Your task to perform on an android device: open app "Google Drive" (install if not already installed) Image 0: 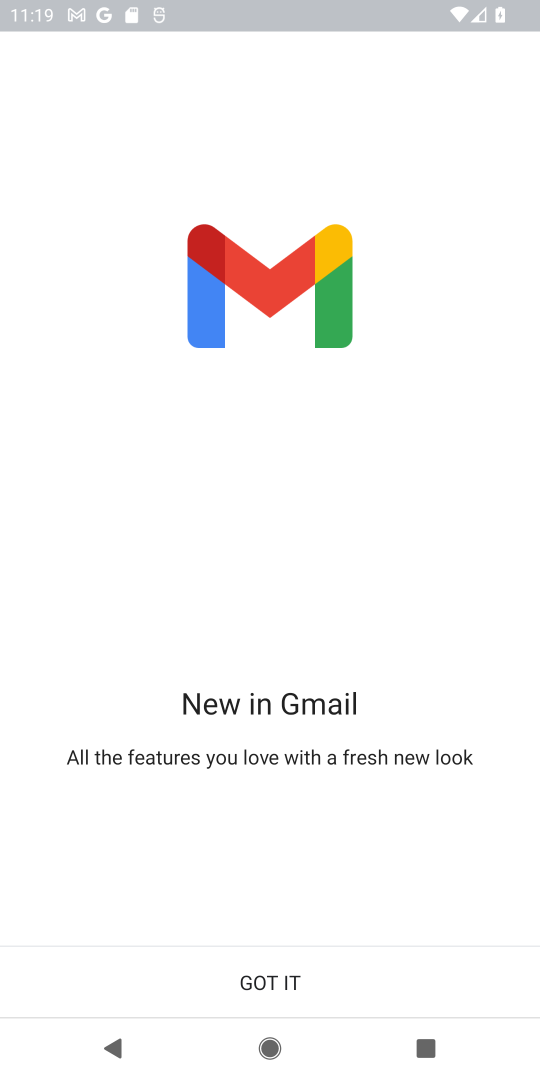
Step 0: press home button
Your task to perform on an android device: open app "Google Drive" (install if not already installed) Image 1: 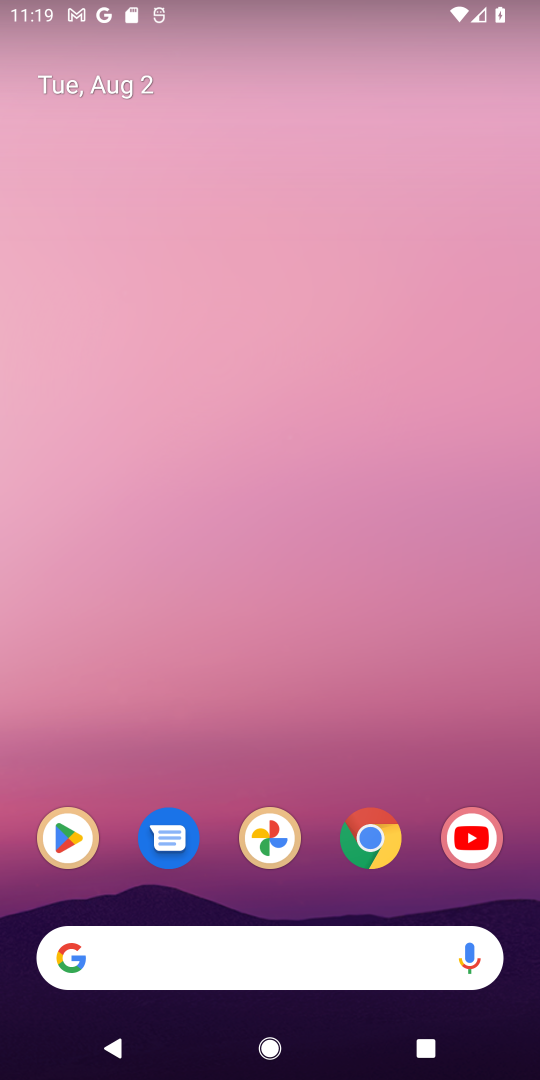
Step 1: click (57, 853)
Your task to perform on an android device: open app "Google Drive" (install if not already installed) Image 2: 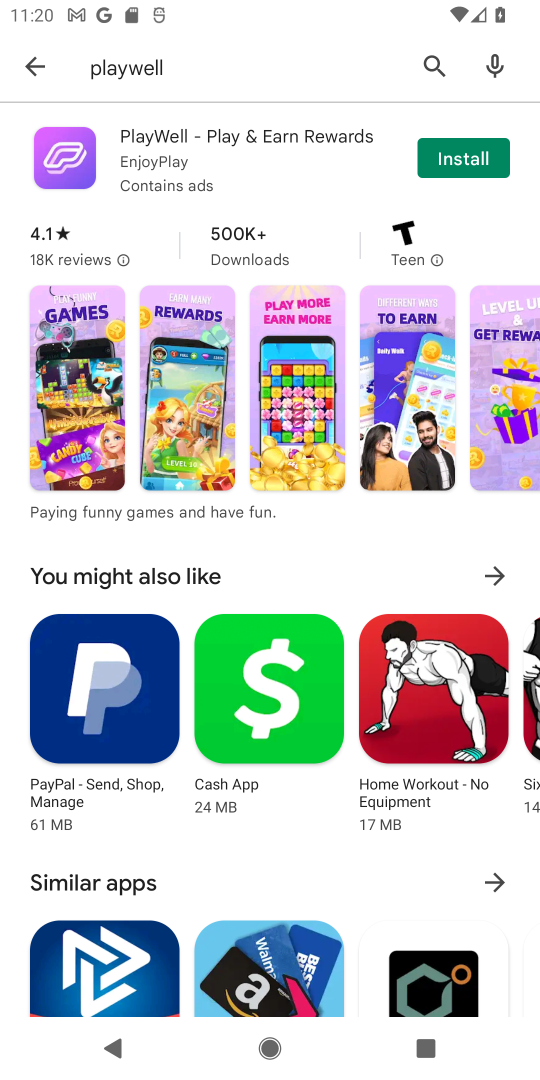
Step 2: click (413, 71)
Your task to perform on an android device: open app "Google Drive" (install if not already installed) Image 3: 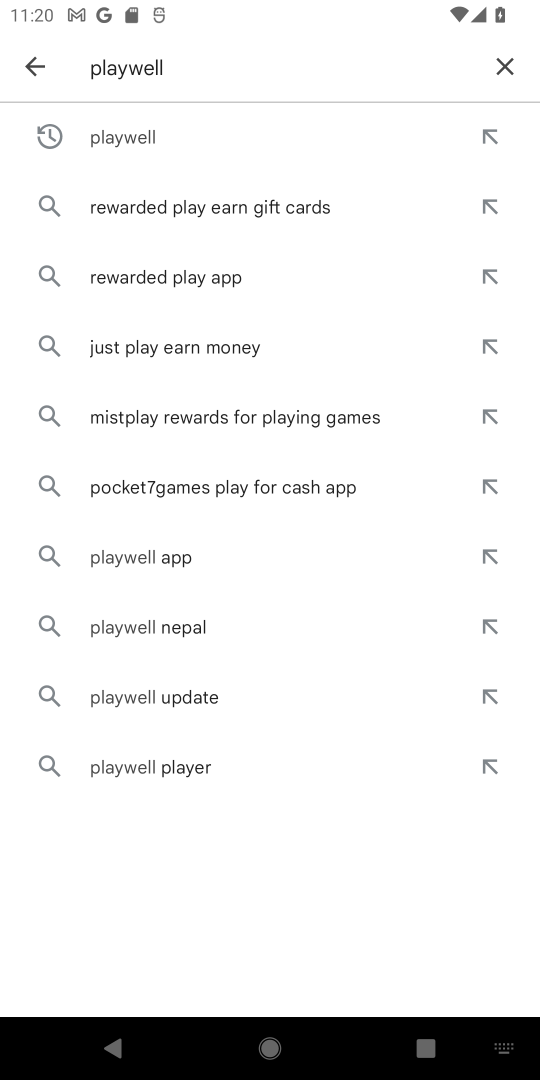
Step 3: click (500, 70)
Your task to perform on an android device: open app "Google Drive" (install if not already installed) Image 4: 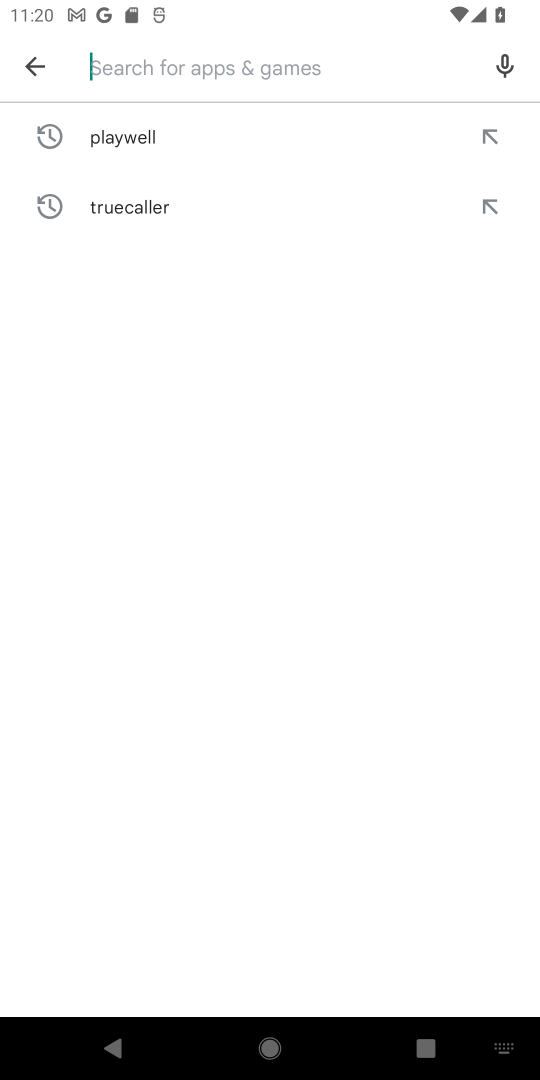
Step 4: type "Google Drive"
Your task to perform on an android device: open app "Google Drive" (install if not already installed) Image 5: 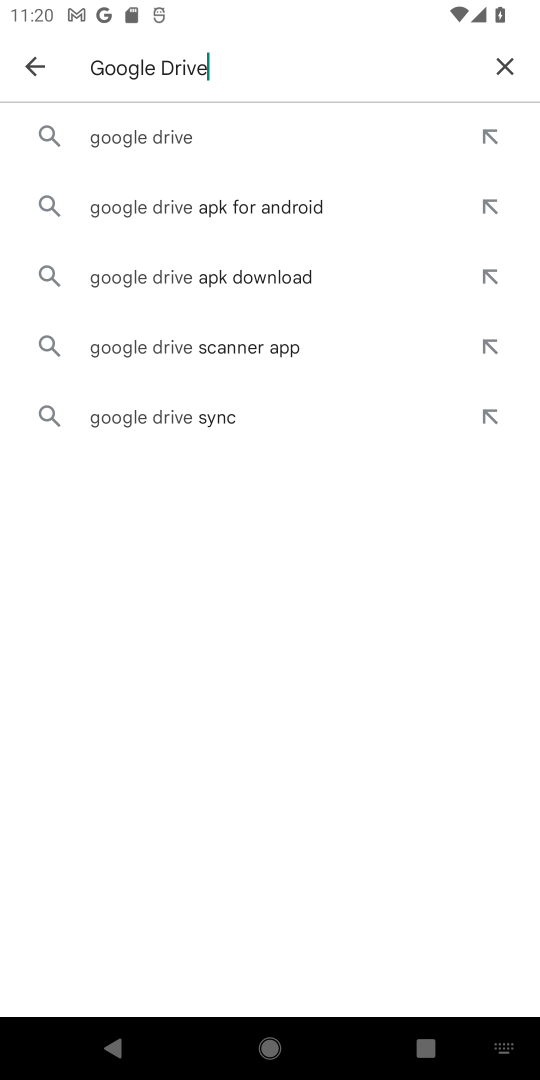
Step 5: click (194, 147)
Your task to perform on an android device: open app "Google Drive" (install if not already installed) Image 6: 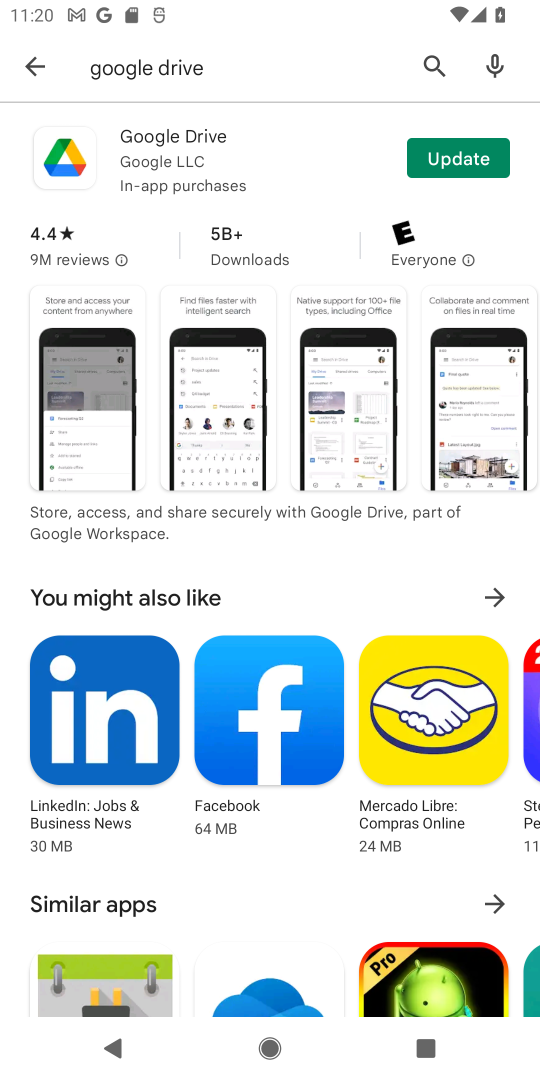
Step 6: click (137, 172)
Your task to perform on an android device: open app "Google Drive" (install if not already installed) Image 7: 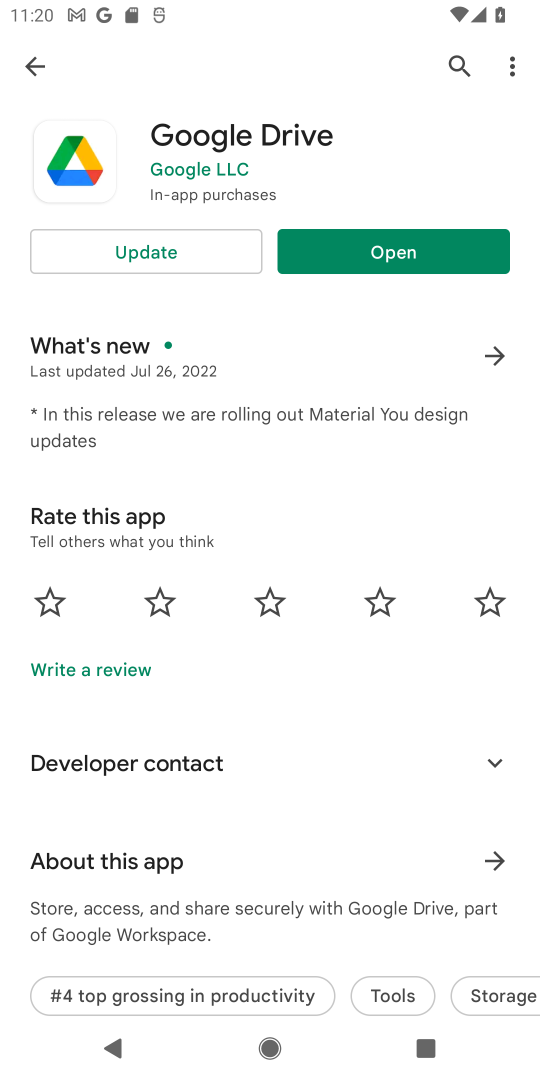
Step 7: click (369, 250)
Your task to perform on an android device: open app "Google Drive" (install if not already installed) Image 8: 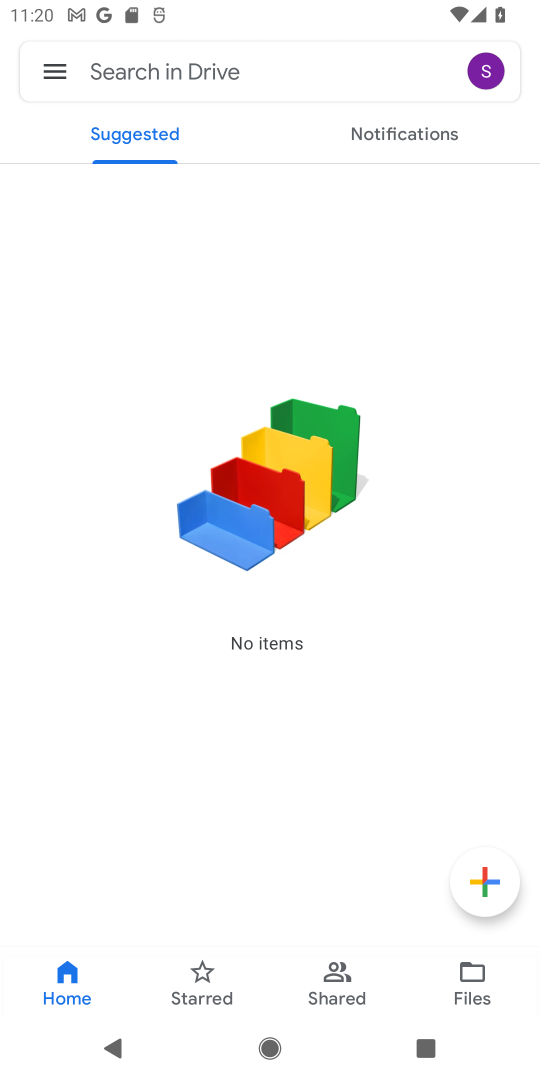
Step 8: task complete